Your task to perform on an android device: Go to display settings Image 0: 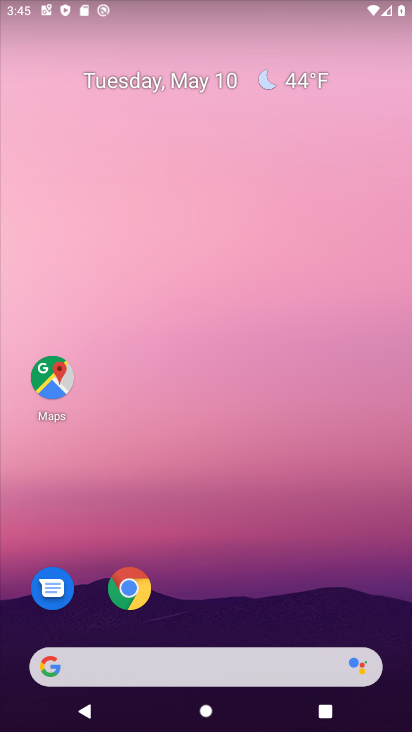
Step 0: drag from (295, 586) to (248, 30)
Your task to perform on an android device: Go to display settings Image 1: 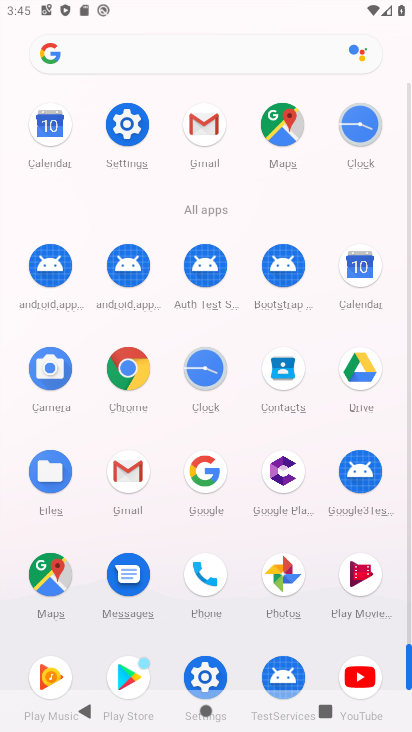
Step 1: click (204, 665)
Your task to perform on an android device: Go to display settings Image 2: 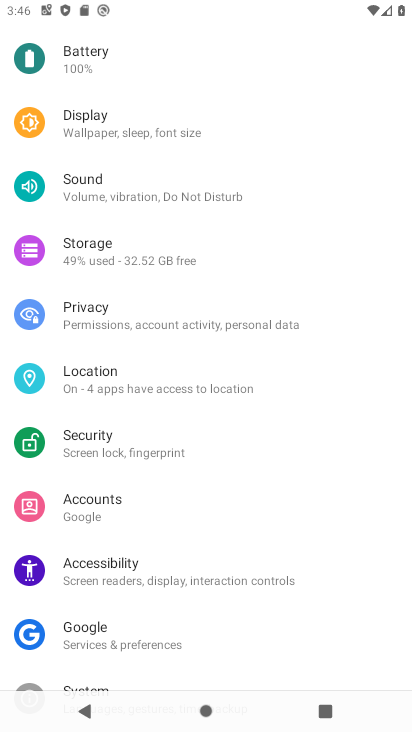
Step 2: click (98, 124)
Your task to perform on an android device: Go to display settings Image 3: 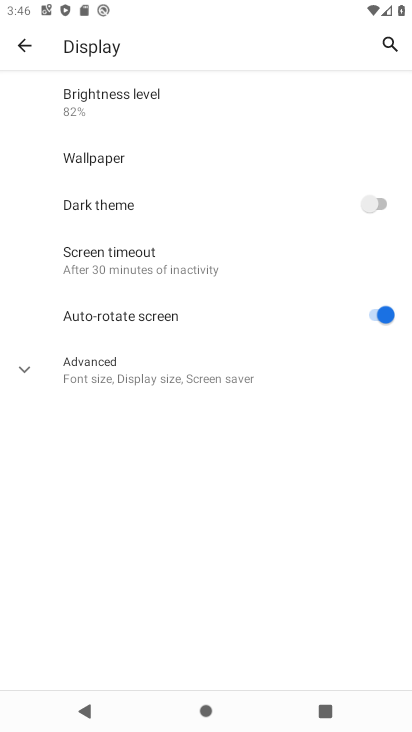
Step 3: task complete